Your task to perform on an android device: Go to Yahoo.com Image 0: 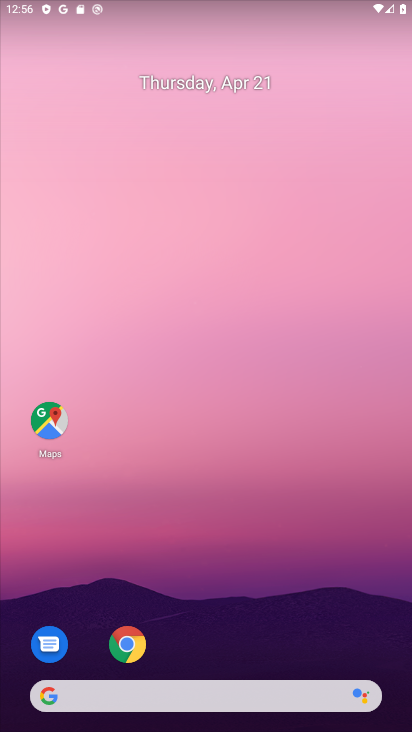
Step 0: click (119, 659)
Your task to perform on an android device: Go to Yahoo.com Image 1: 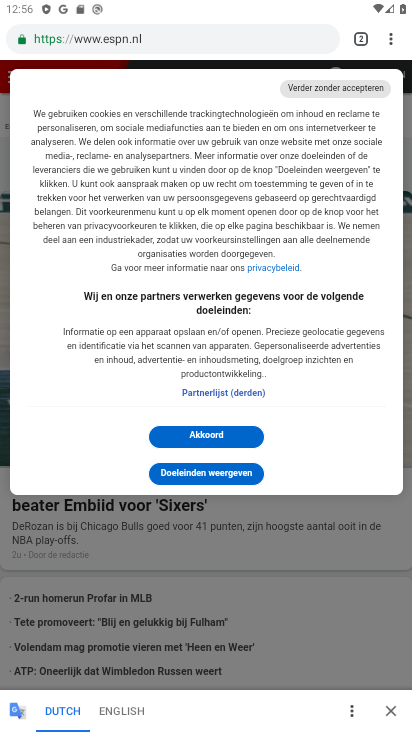
Step 1: click (142, 42)
Your task to perform on an android device: Go to Yahoo.com Image 2: 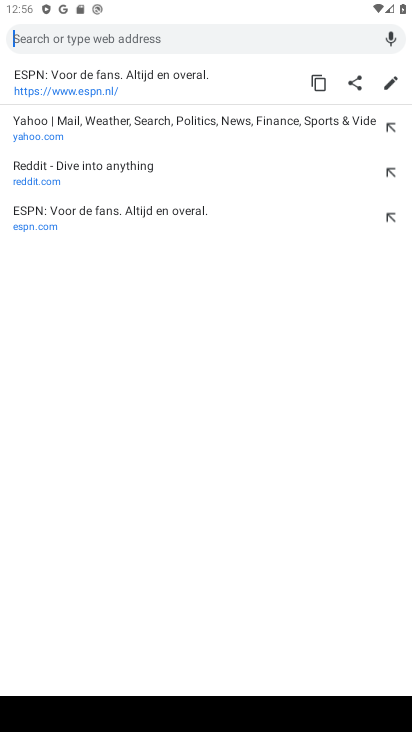
Step 2: type "yahoo.com"
Your task to perform on an android device: Go to Yahoo.com Image 3: 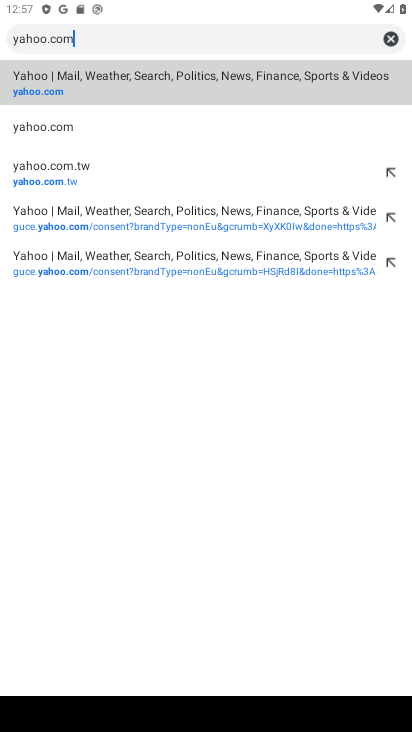
Step 3: click (40, 90)
Your task to perform on an android device: Go to Yahoo.com Image 4: 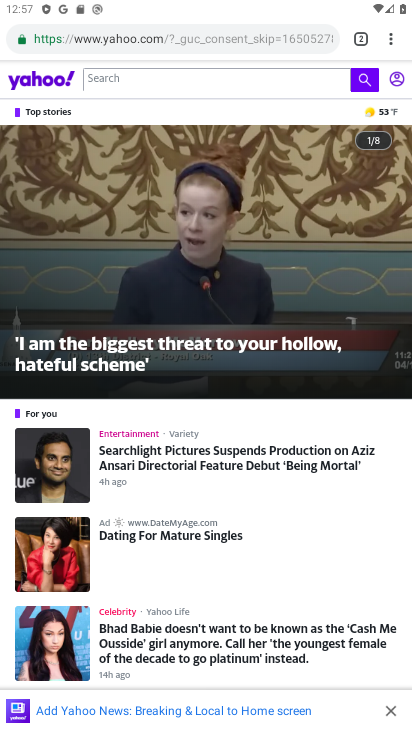
Step 4: task complete